Your task to perform on an android device: Open display settings Image 0: 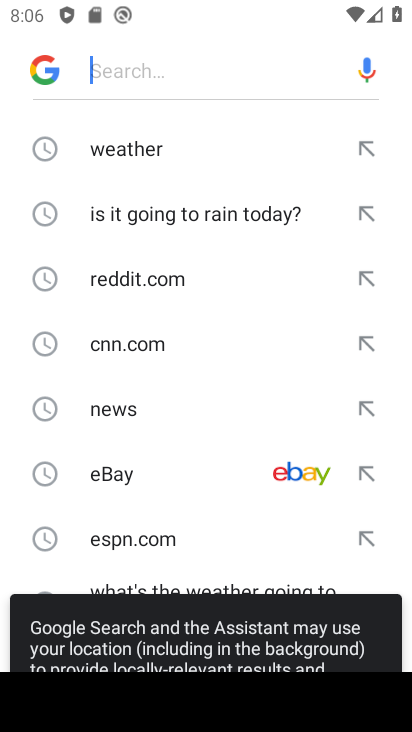
Step 0: press home button
Your task to perform on an android device: Open display settings Image 1: 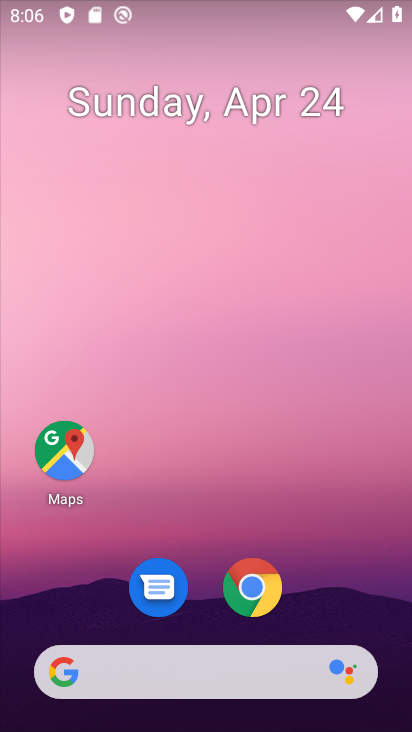
Step 1: drag from (352, 606) to (329, 206)
Your task to perform on an android device: Open display settings Image 2: 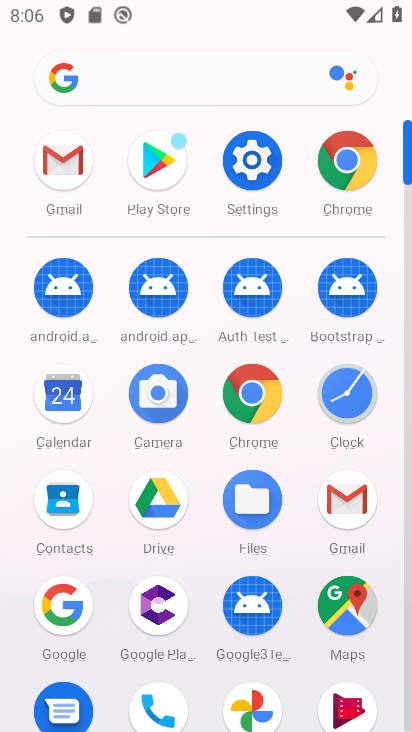
Step 2: click (243, 170)
Your task to perform on an android device: Open display settings Image 3: 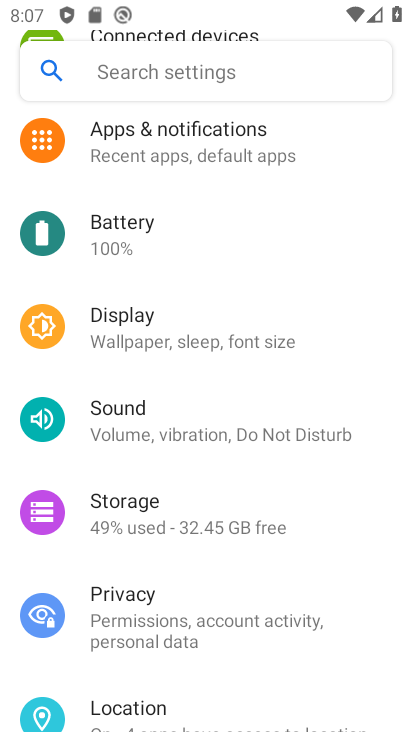
Step 3: click (190, 338)
Your task to perform on an android device: Open display settings Image 4: 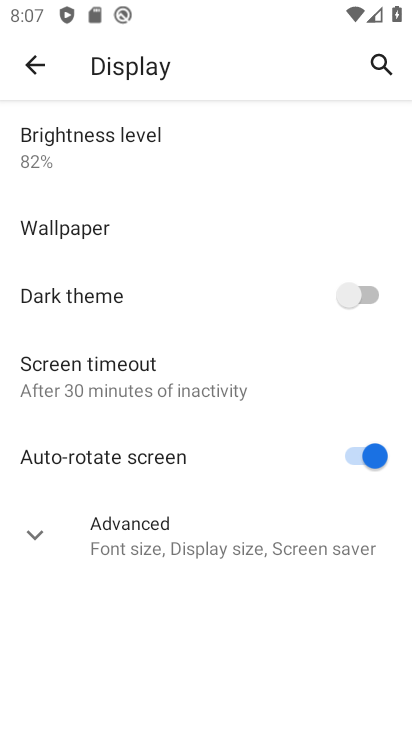
Step 4: task complete